Your task to perform on an android device: Play the latest video from the Washington Post Image 0: 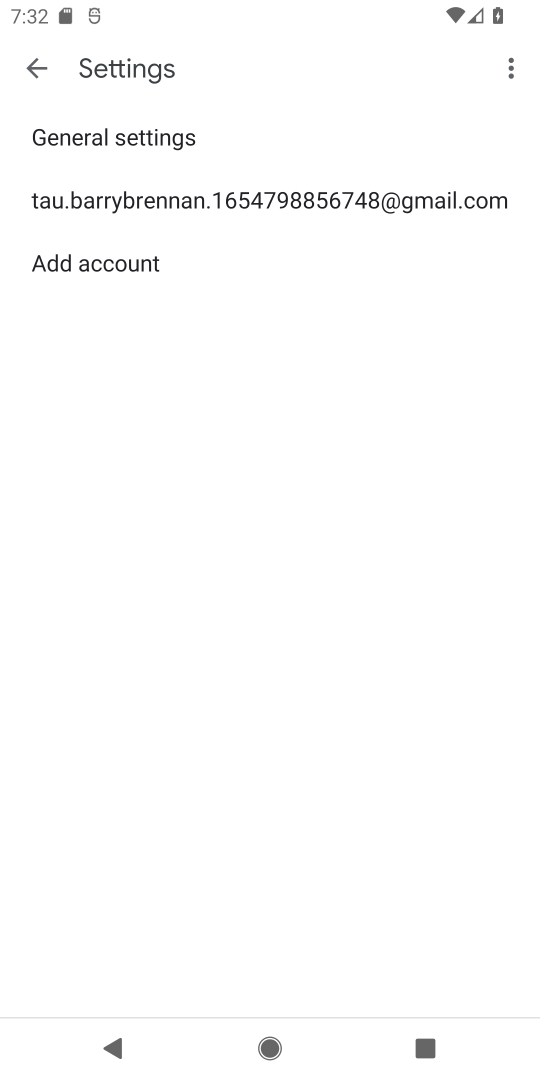
Step 0: press home button
Your task to perform on an android device: Play the latest video from the Washington Post Image 1: 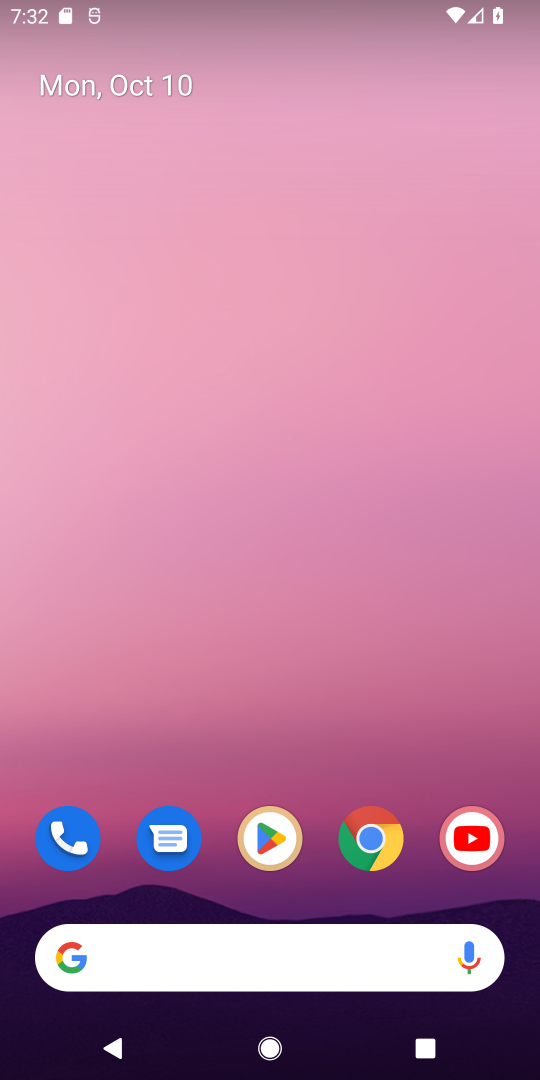
Step 1: click (466, 836)
Your task to perform on an android device: Play the latest video from the Washington Post Image 2: 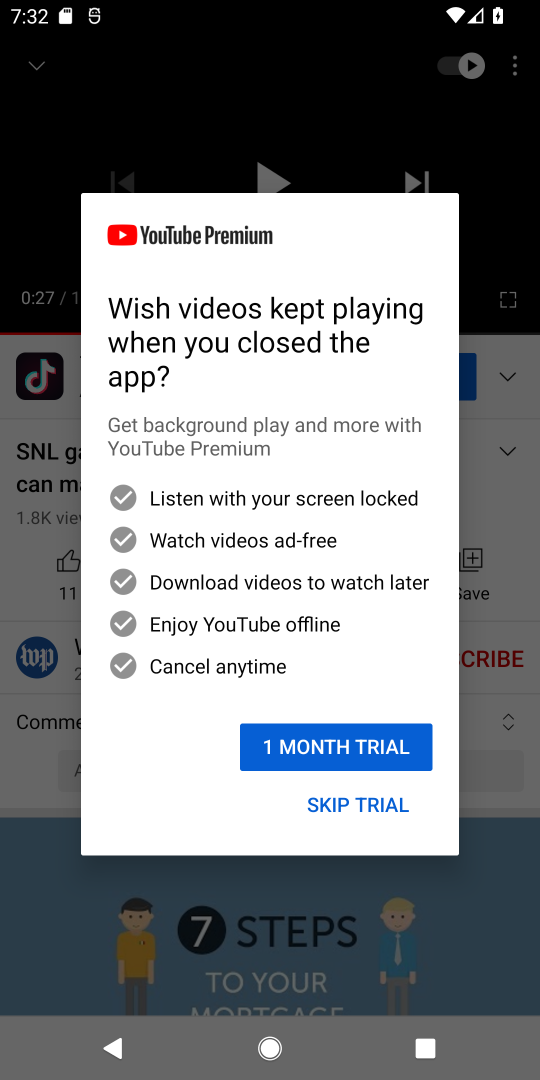
Step 2: click (324, 804)
Your task to perform on an android device: Play the latest video from the Washington Post Image 3: 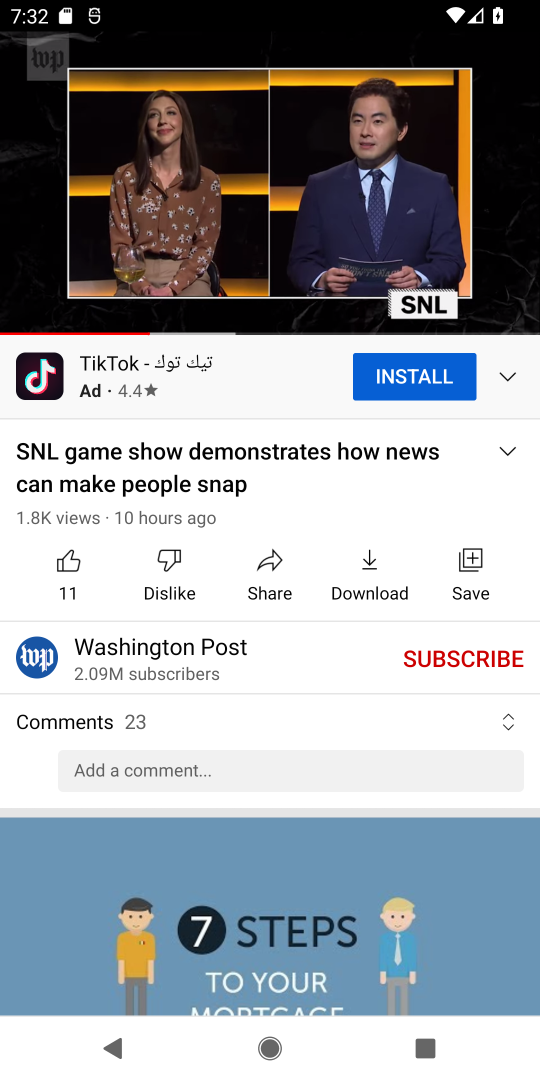
Step 3: click (34, 67)
Your task to perform on an android device: Play the latest video from the Washington Post Image 4: 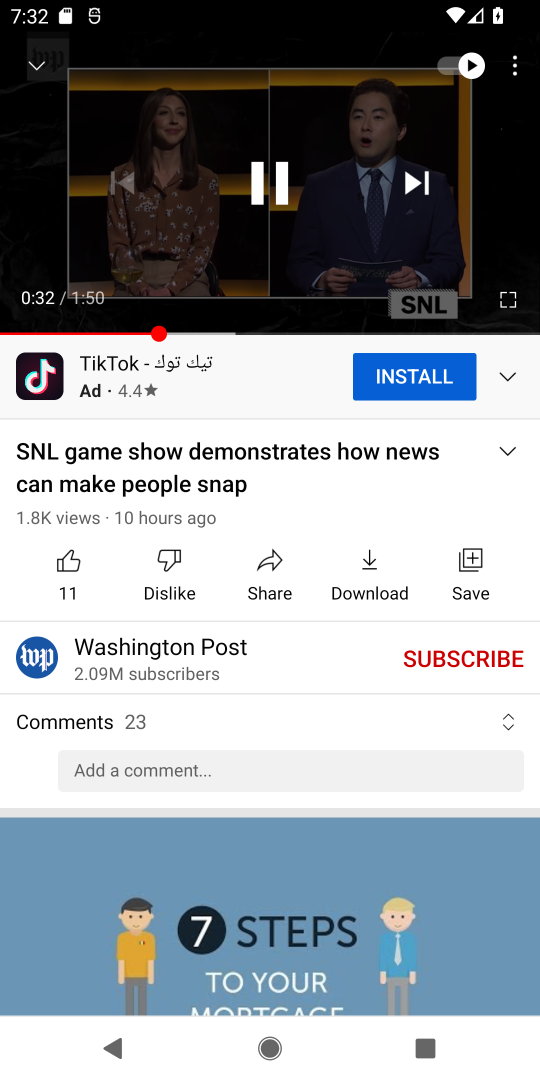
Step 4: click (34, 67)
Your task to perform on an android device: Play the latest video from the Washington Post Image 5: 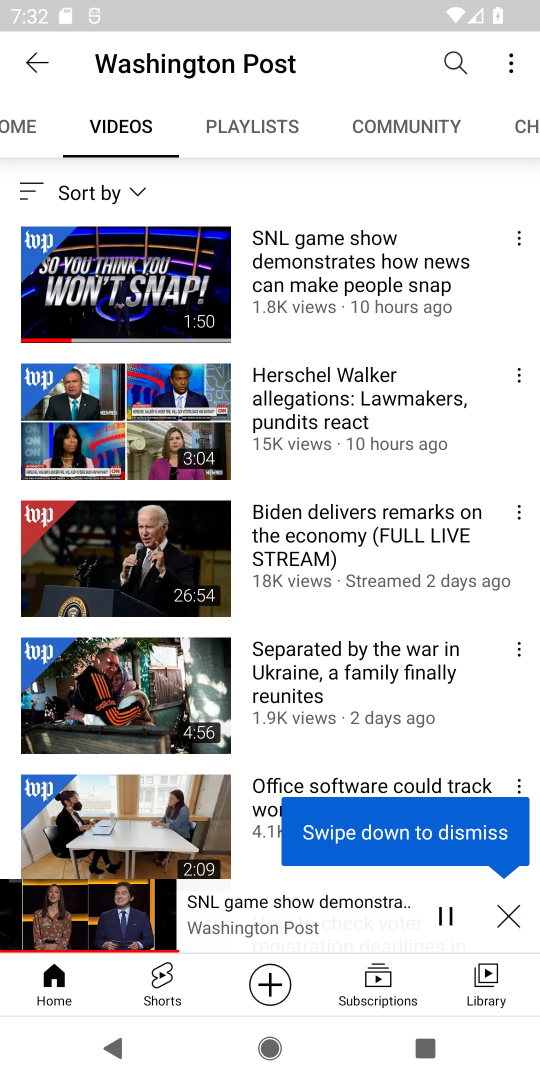
Step 5: drag from (244, 241) to (257, 621)
Your task to perform on an android device: Play the latest video from the Washington Post Image 6: 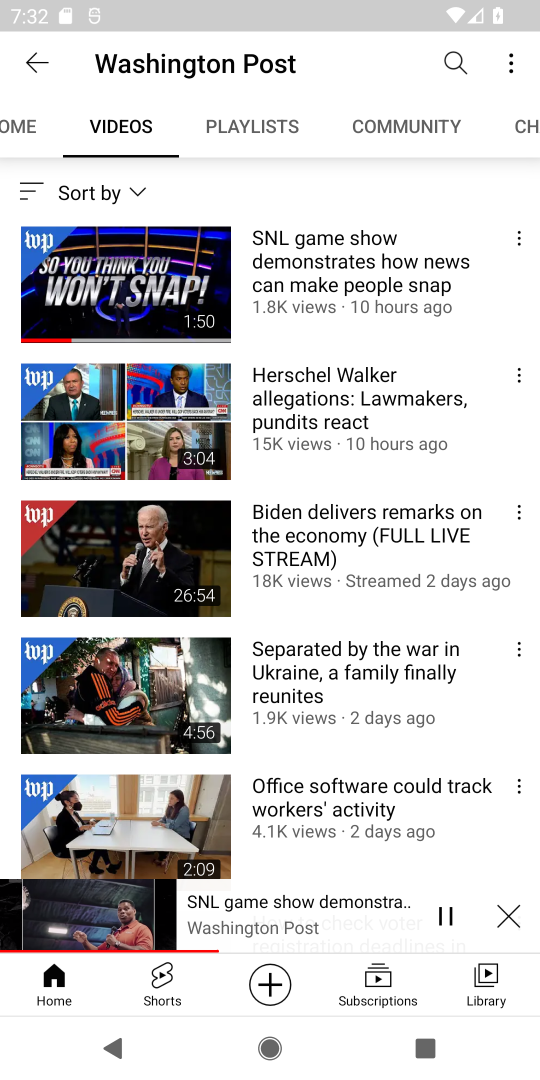
Step 6: click (121, 273)
Your task to perform on an android device: Play the latest video from the Washington Post Image 7: 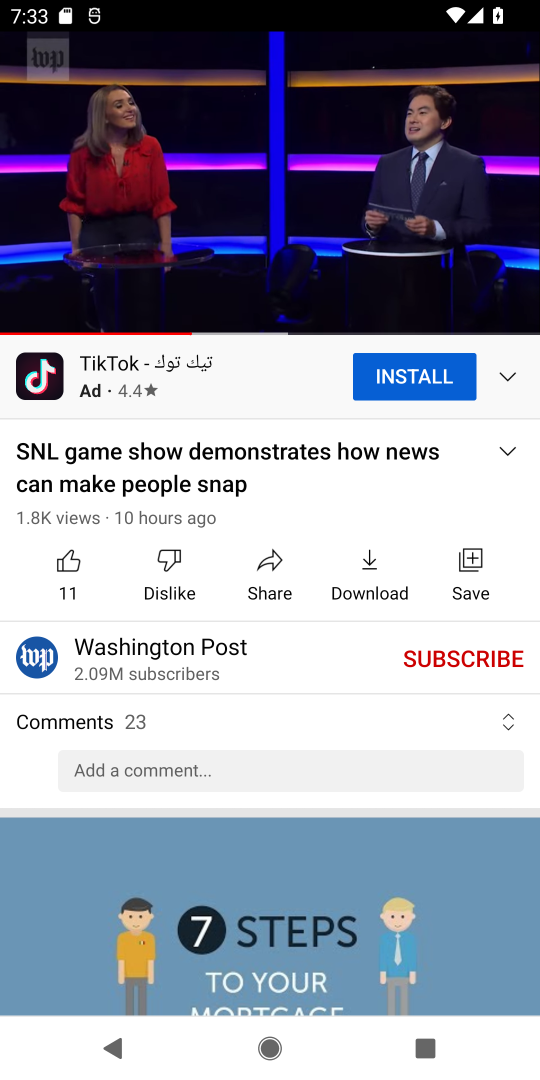
Step 7: click (282, 178)
Your task to perform on an android device: Play the latest video from the Washington Post Image 8: 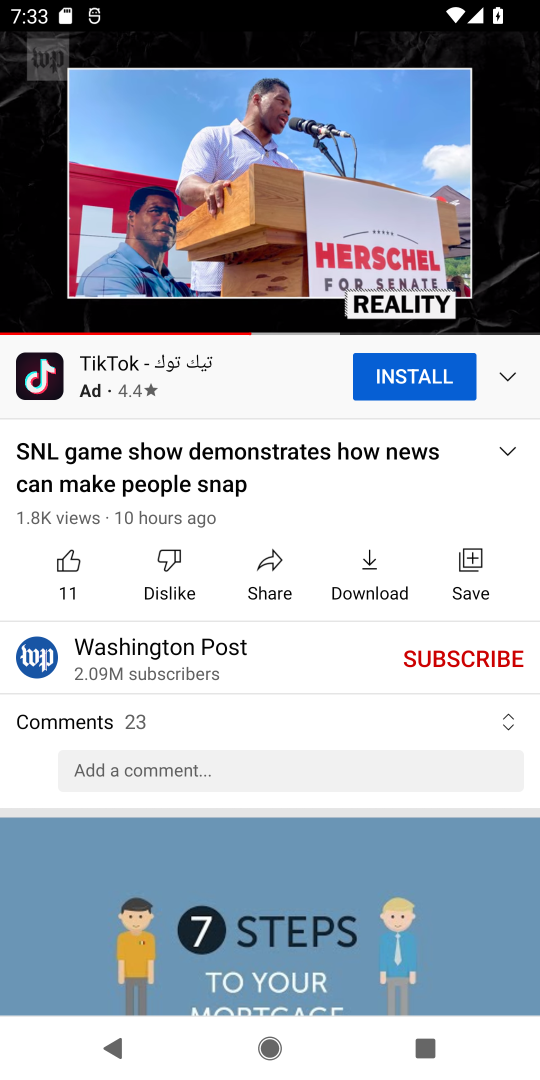
Step 8: click (273, 180)
Your task to perform on an android device: Play the latest video from the Washington Post Image 9: 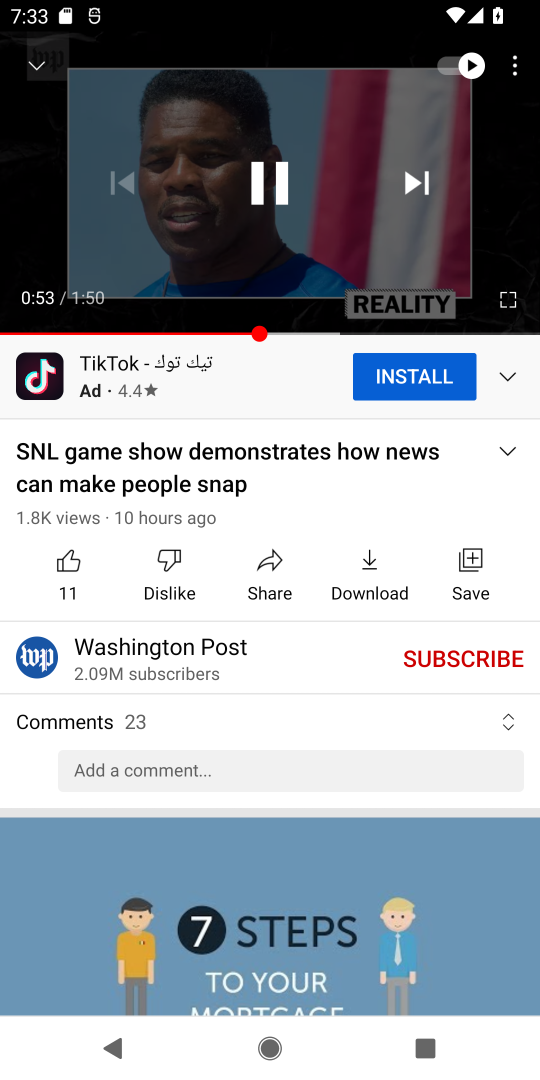
Step 9: click (273, 180)
Your task to perform on an android device: Play the latest video from the Washington Post Image 10: 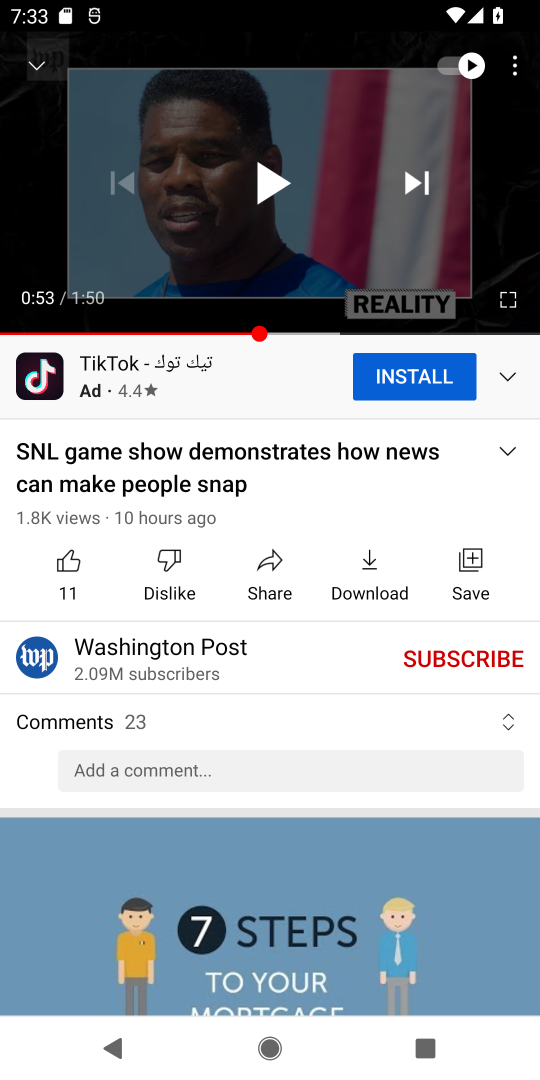
Step 10: task complete